Your task to perform on an android device: turn on wifi Image 0: 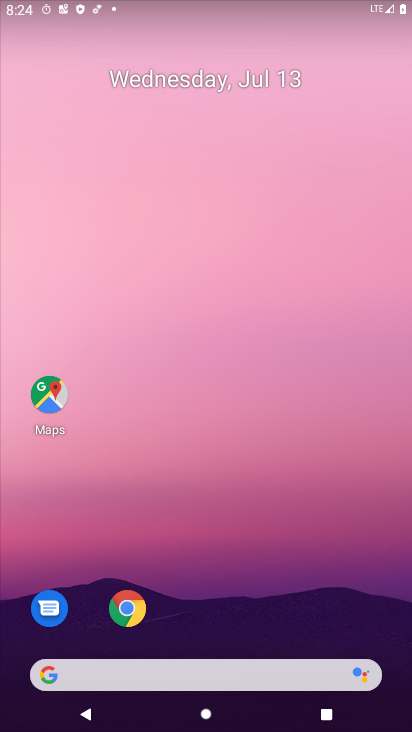
Step 0: drag from (252, 574) to (293, 108)
Your task to perform on an android device: turn on wifi Image 1: 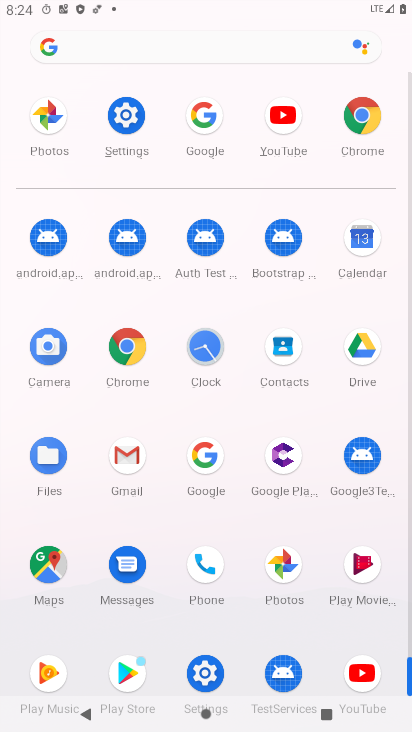
Step 1: drag from (270, 179) to (257, 107)
Your task to perform on an android device: turn on wifi Image 2: 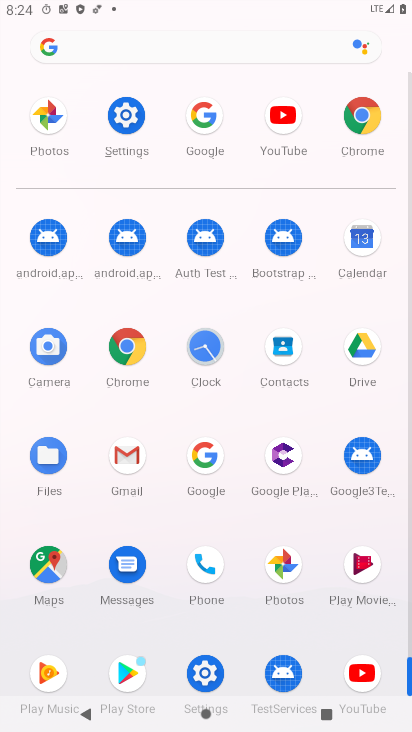
Step 2: click (131, 108)
Your task to perform on an android device: turn on wifi Image 3: 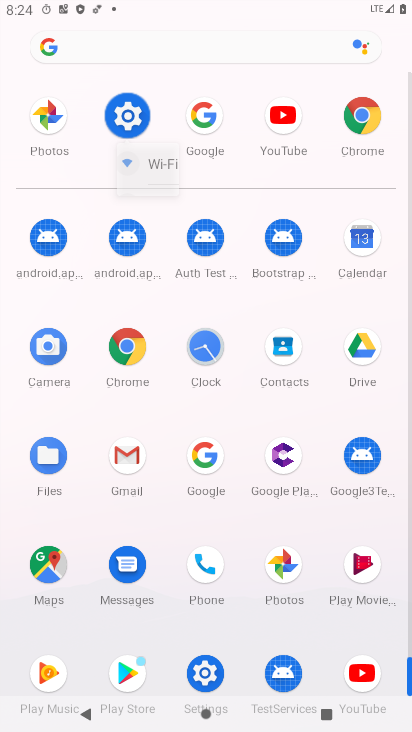
Step 3: click (131, 108)
Your task to perform on an android device: turn on wifi Image 4: 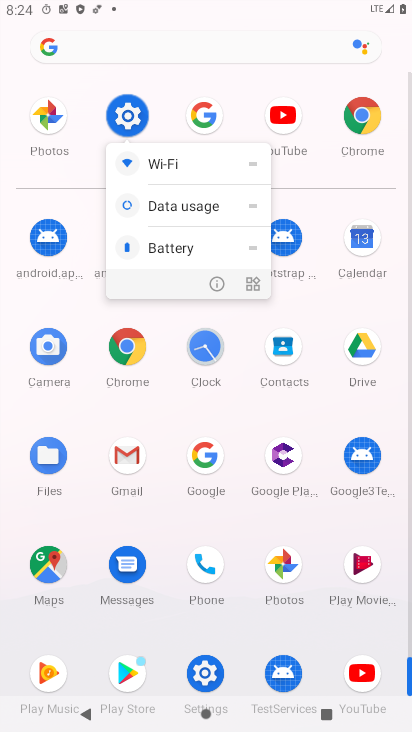
Step 4: click (130, 107)
Your task to perform on an android device: turn on wifi Image 5: 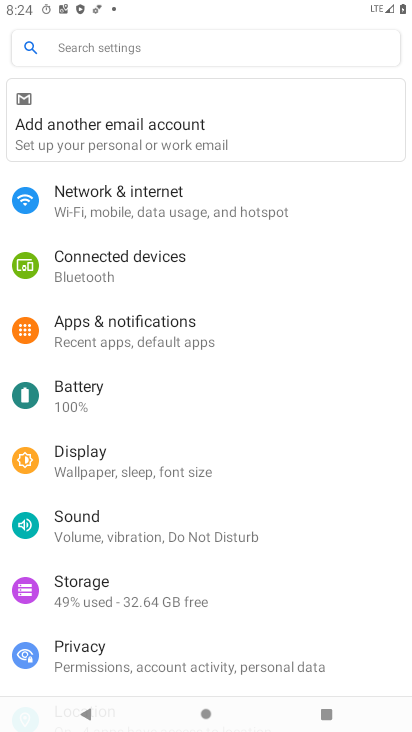
Step 5: click (127, 207)
Your task to perform on an android device: turn on wifi Image 6: 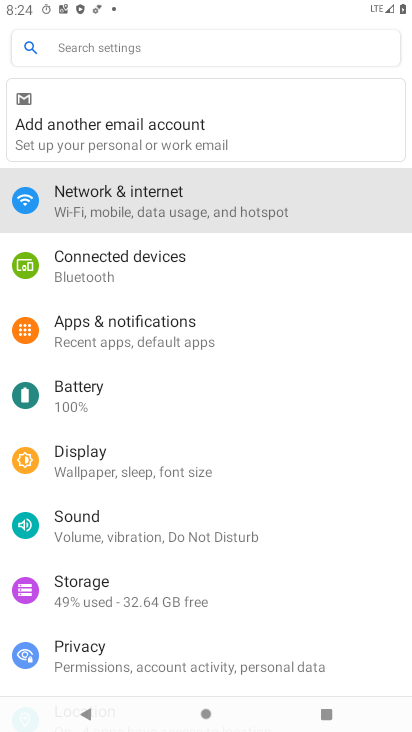
Step 6: click (131, 208)
Your task to perform on an android device: turn on wifi Image 7: 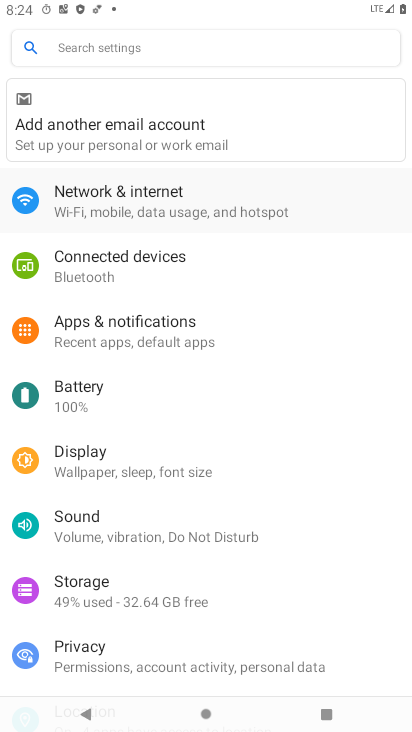
Step 7: click (131, 208)
Your task to perform on an android device: turn on wifi Image 8: 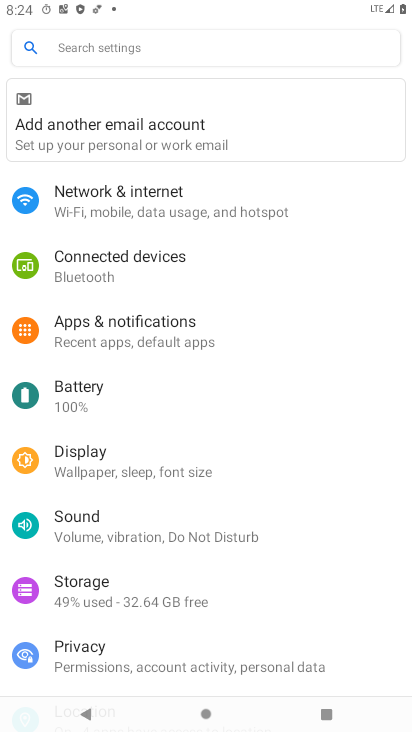
Step 8: click (131, 208)
Your task to perform on an android device: turn on wifi Image 9: 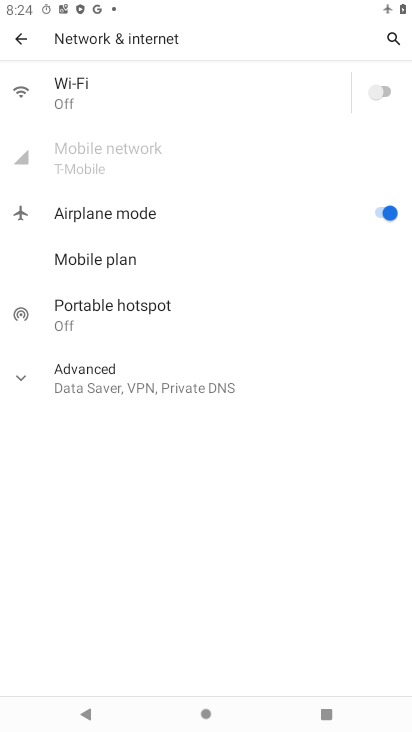
Step 9: click (386, 221)
Your task to perform on an android device: turn on wifi Image 10: 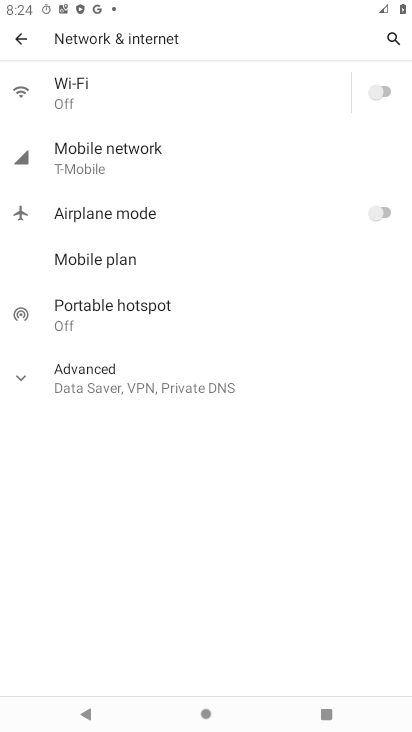
Step 10: click (380, 88)
Your task to perform on an android device: turn on wifi Image 11: 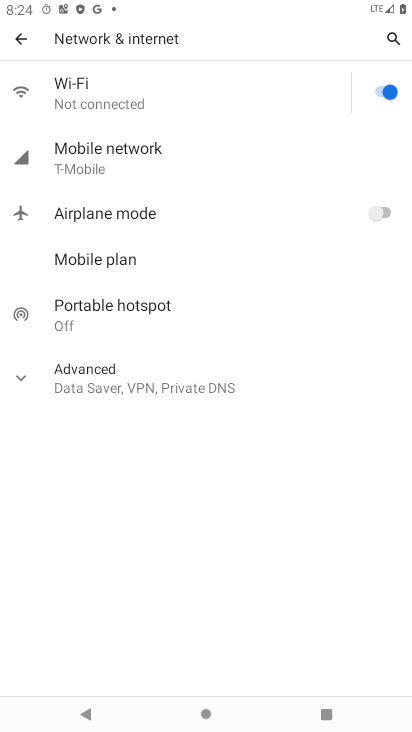
Step 11: task complete